Your task to perform on an android device: turn off data saver in the chrome app Image 0: 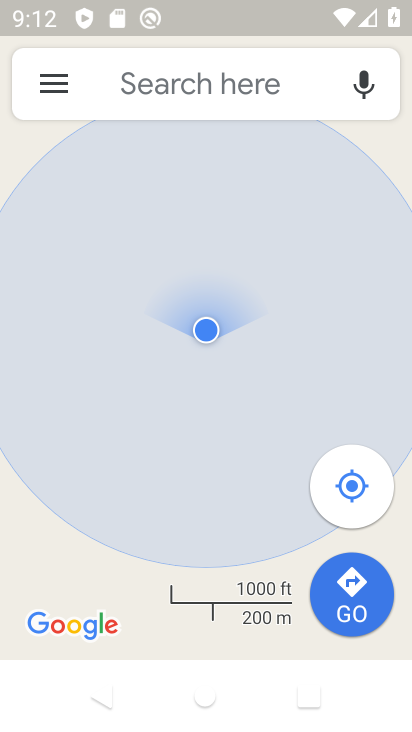
Step 0: press home button
Your task to perform on an android device: turn off data saver in the chrome app Image 1: 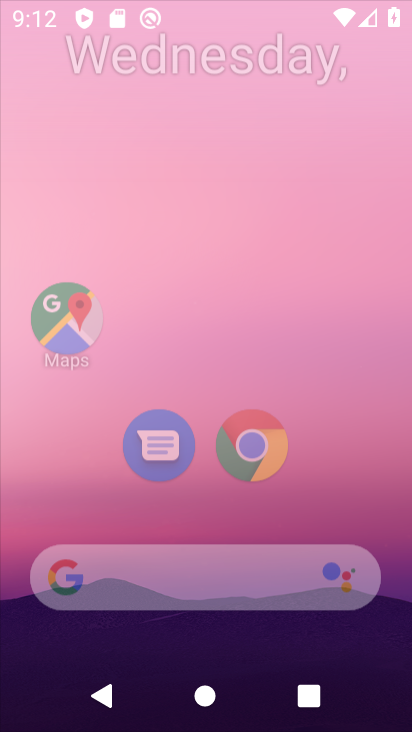
Step 1: drag from (376, 523) to (351, 137)
Your task to perform on an android device: turn off data saver in the chrome app Image 2: 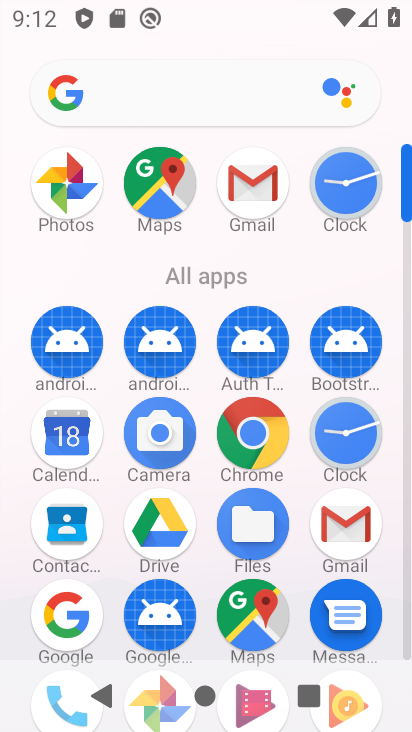
Step 2: click (246, 429)
Your task to perform on an android device: turn off data saver in the chrome app Image 3: 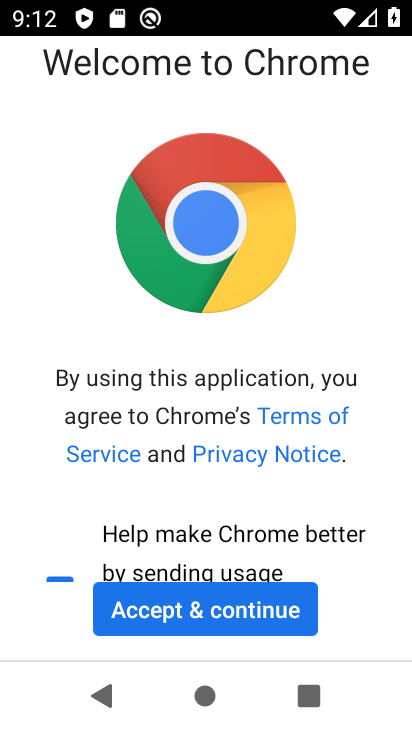
Step 3: click (261, 609)
Your task to perform on an android device: turn off data saver in the chrome app Image 4: 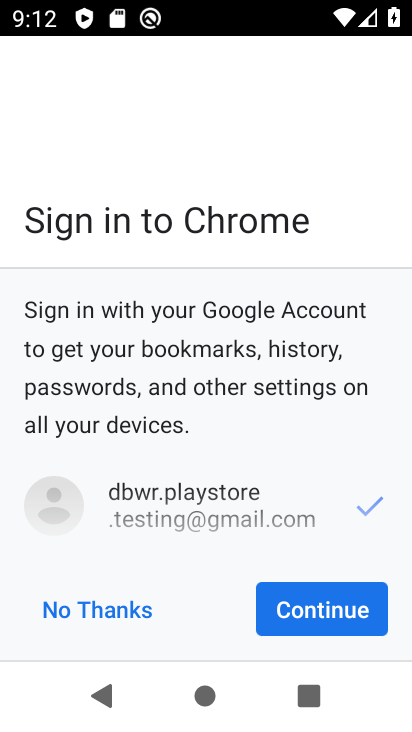
Step 4: click (311, 620)
Your task to perform on an android device: turn off data saver in the chrome app Image 5: 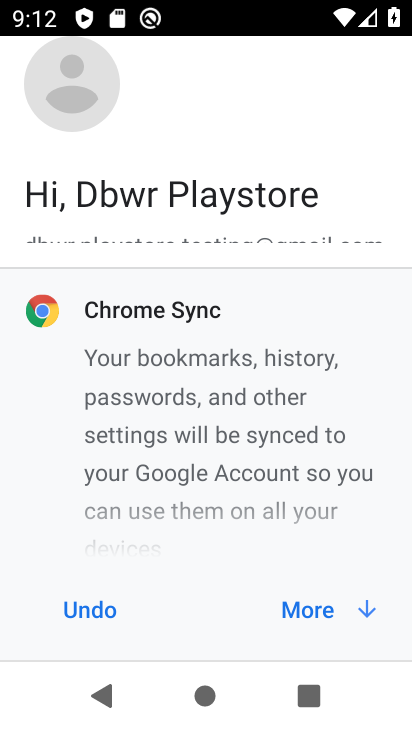
Step 5: click (311, 619)
Your task to perform on an android device: turn off data saver in the chrome app Image 6: 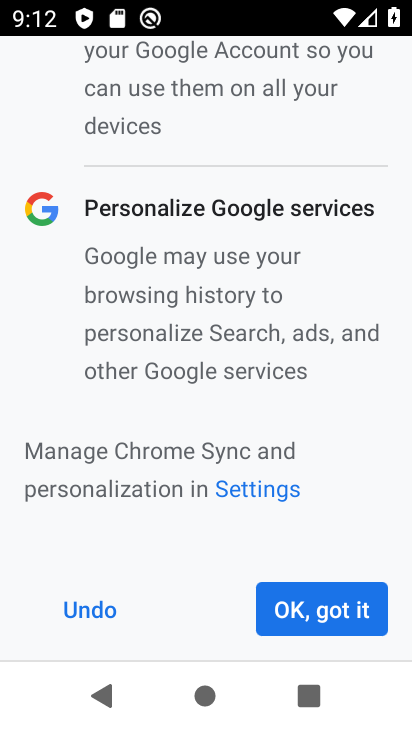
Step 6: click (311, 619)
Your task to perform on an android device: turn off data saver in the chrome app Image 7: 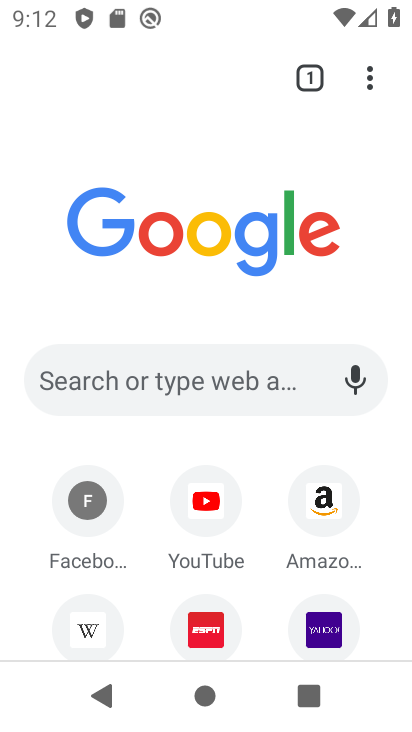
Step 7: drag from (371, 74) to (115, 548)
Your task to perform on an android device: turn off data saver in the chrome app Image 8: 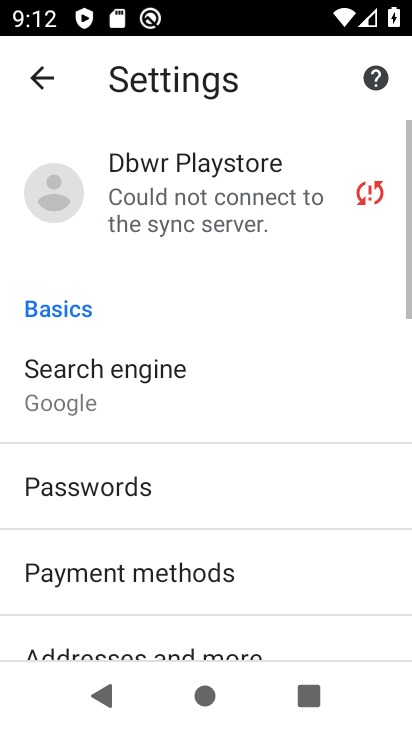
Step 8: drag from (271, 610) to (282, 274)
Your task to perform on an android device: turn off data saver in the chrome app Image 9: 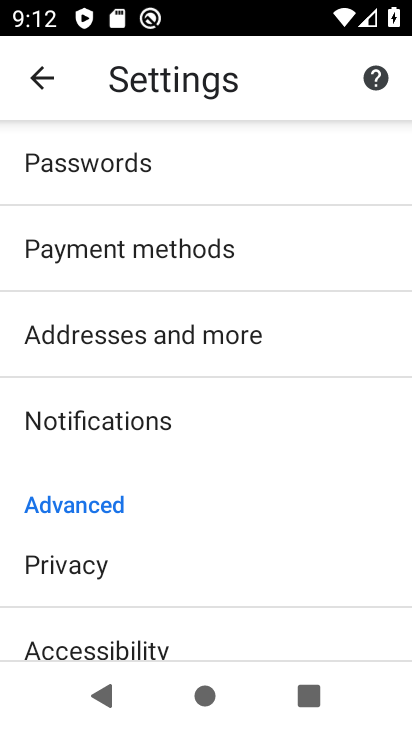
Step 9: drag from (297, 556) to (298, 207)
Your task to perform on an android device: turn off data saver in the chrome app Image 10: 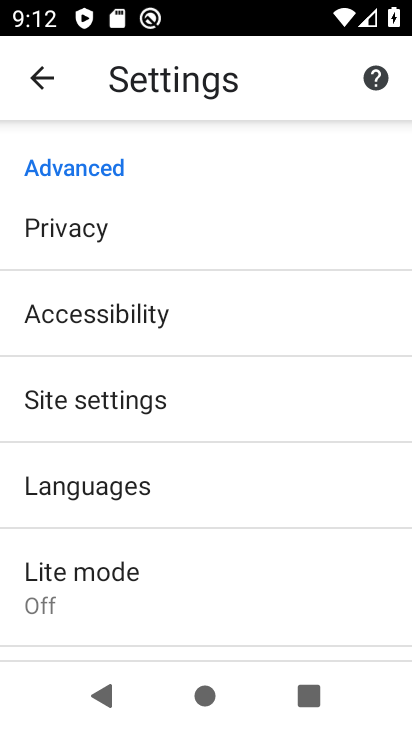
Step 10: click (143, 567)
Your task to perform on an android device: turn off data saver in the chrome app Image 11: 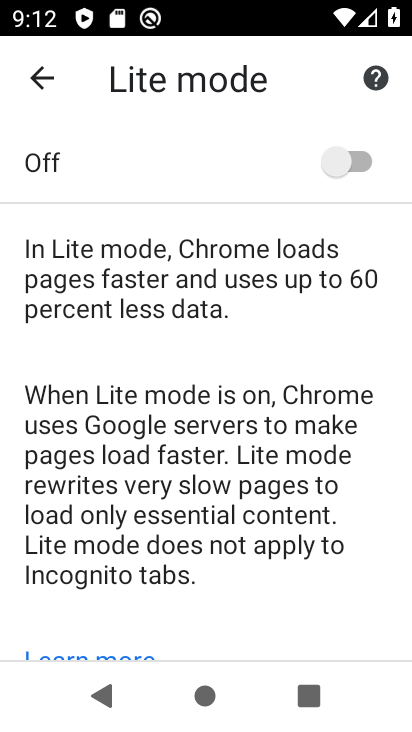
Step 11: task complete